Your task to perform on an android device: Go to Yahoo.com Image 0: 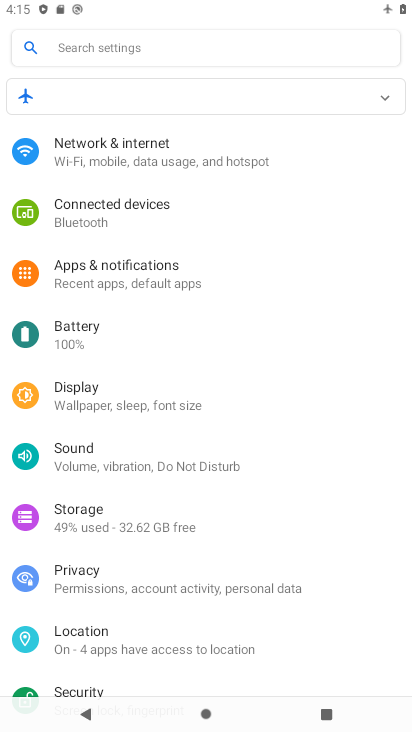
Step 0: press home button
Your task to perform on an android device: Go to Yahoo.com Image 1: 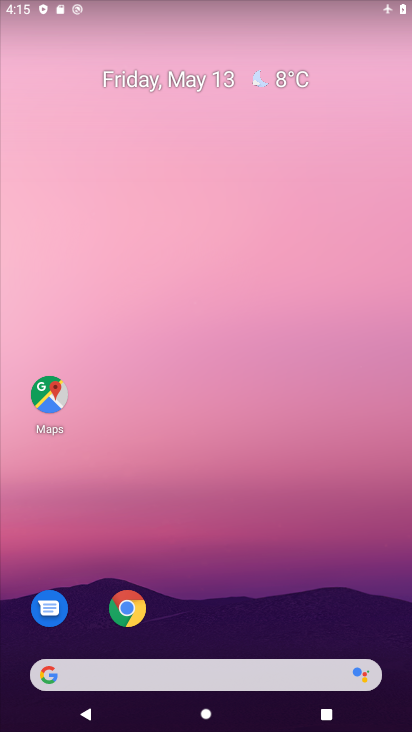
Step 1: click (126, 605)
Your task to perform on an android device: Go to Yahoo.com Image 2: 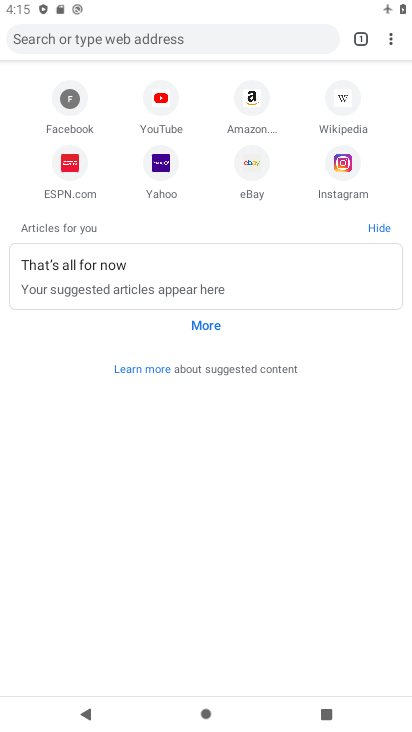
Step 2: click (213, 37)
Your task to perform on an android device: Go to Yahoo.com Image 3: 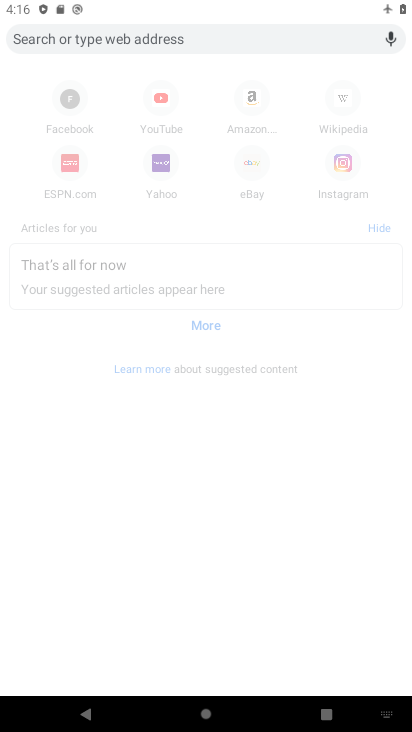
Step 3: type "Yahoo.com"
Your task to perform on an android device: Go to Yahoo.com Image 4: 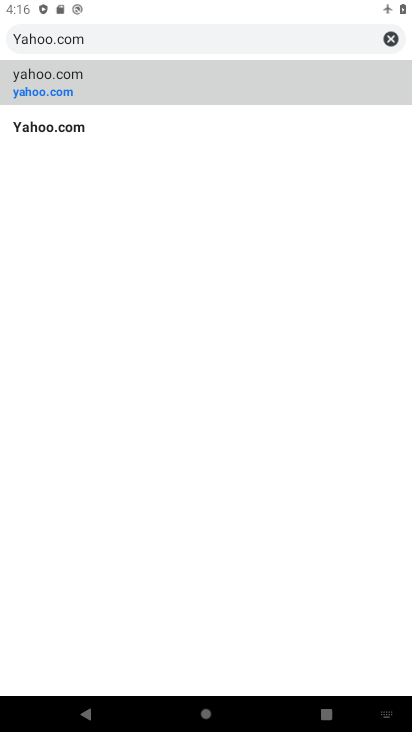
Step 4: click (27, 129)
Your task to perform on an android device: Go to Yahoo.com Image 5: 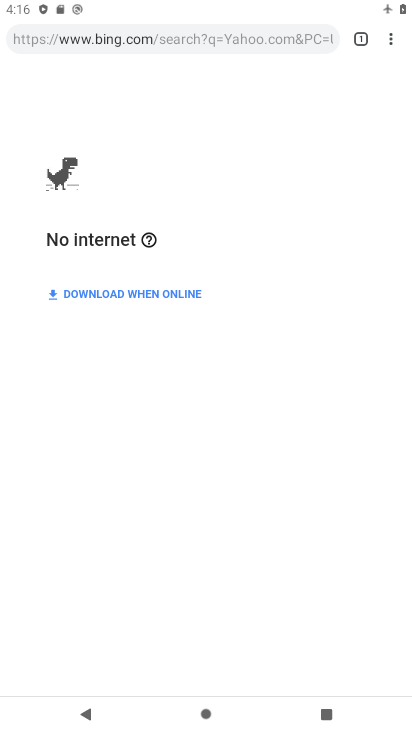
Step 5: task complete